Your task to perform on an android device: Go to notification settings Image 0: 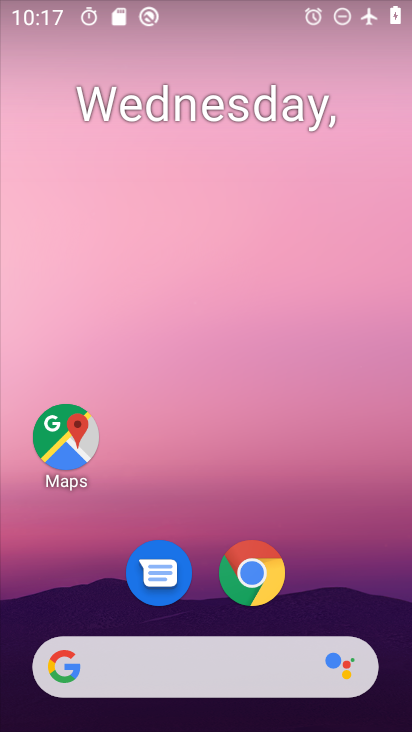
Step 0: drag from (307, 546) to (318, 360)
Your task to perform on an android device: Go to notification settings Image 1: 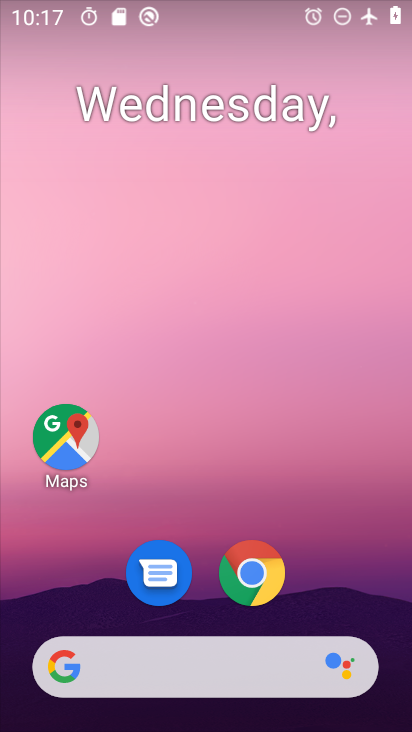
Step 1: drag from (322, 676) to (320, 293)
Your task to perform on an android device: Go to notification settings Image 2: 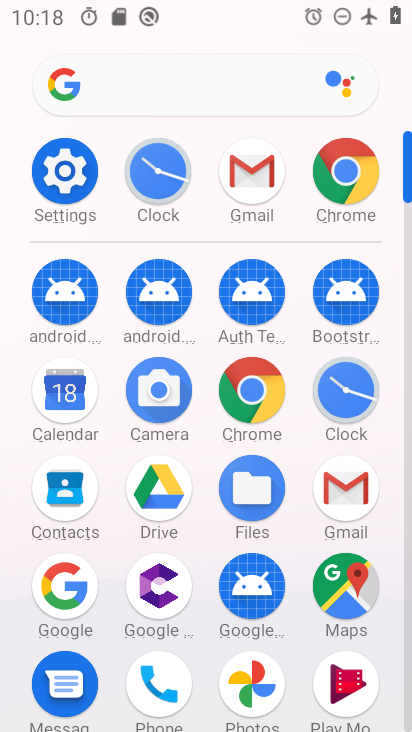
Step 2: click (78, 165)
Your task to perform on an android device: Go to notification settings Image 3: 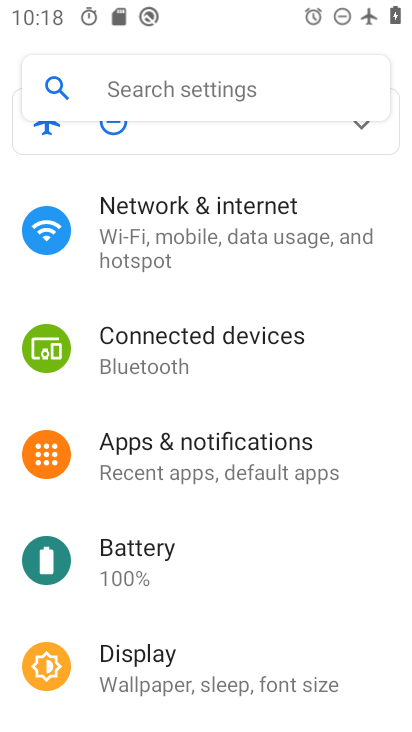
Step 3: click (327, 460)
Your task to perform on an android device: Go to notification settings Image 4: 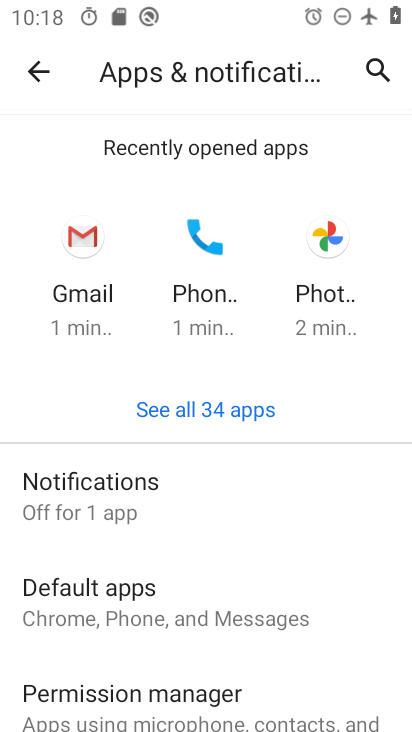
Step 4: click (197, 494)
Your task to perform on an android device: Go to notification settings Image 5: 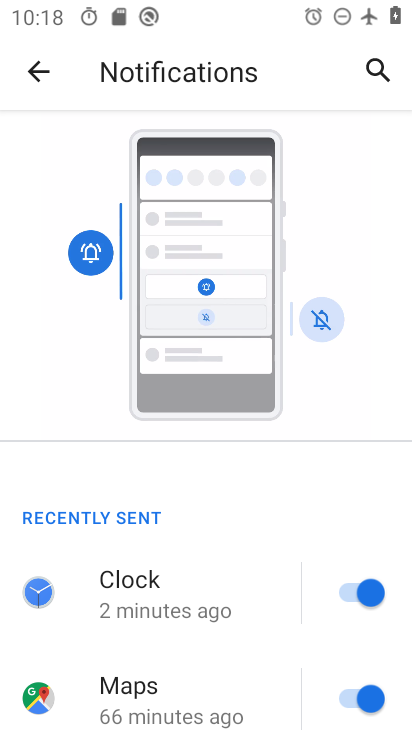
Step 5: task complete